Your task to perform on an android device: Open Amazon Image 0: 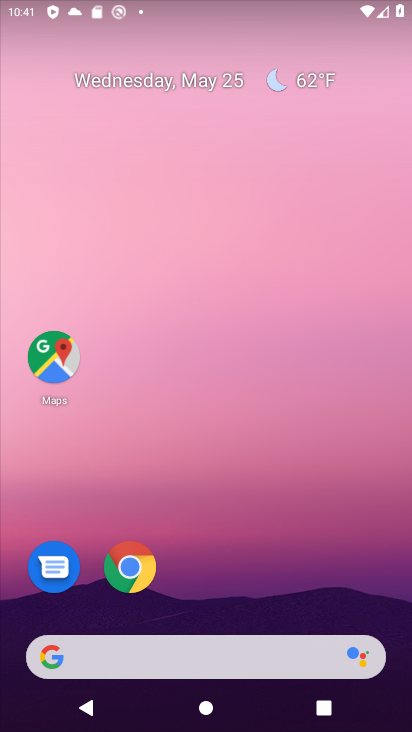
Step 0: drag from (357, 593) to (268, 54)
Your task to perform on an android device: Open Amazon Image 1: 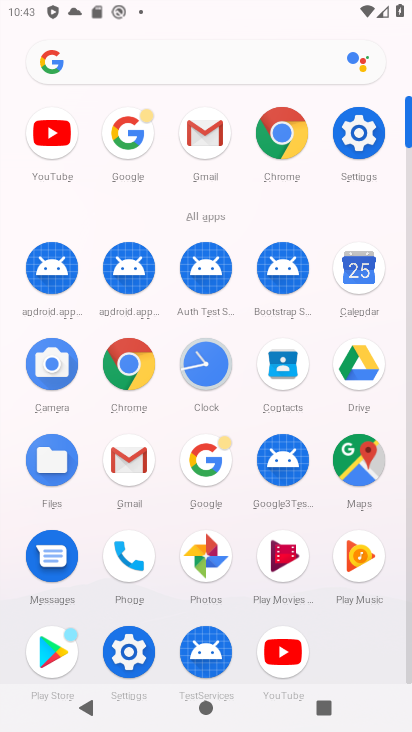
Step 1: click (196, 452)
Your task to perform on an android device: Open Amazon Image 2: 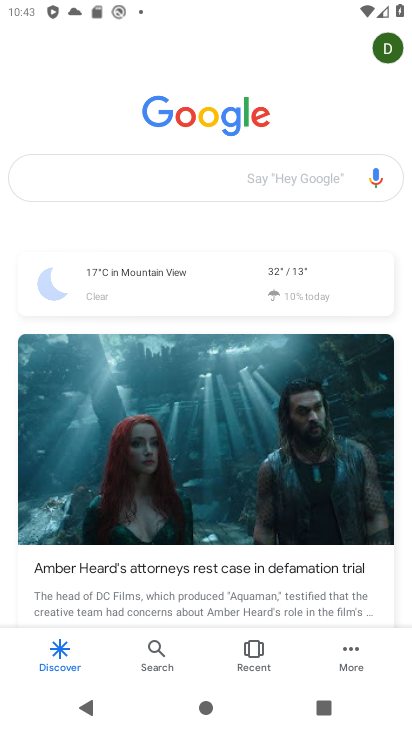
Step 2: click (147, 173)
Your task to perform on an android device: Open Amazon Image 3: 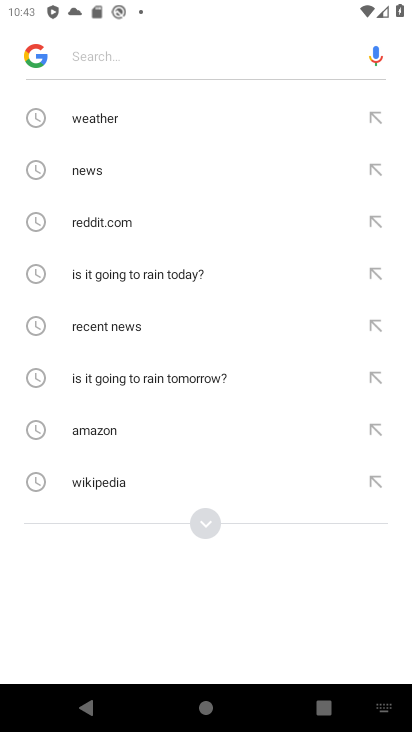
Step 3: click (86, 424)
Your task to perform on an android device: Open Amazon Image 4: 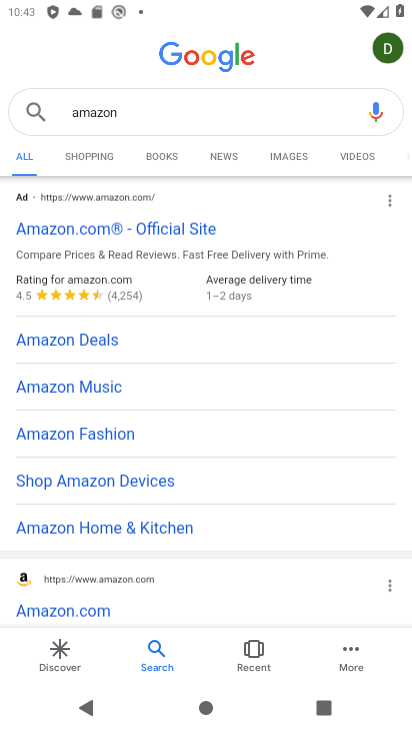
Step 4: task complete